Your task to perform on an android device: find snoozed emails in the gmail app Image 0: 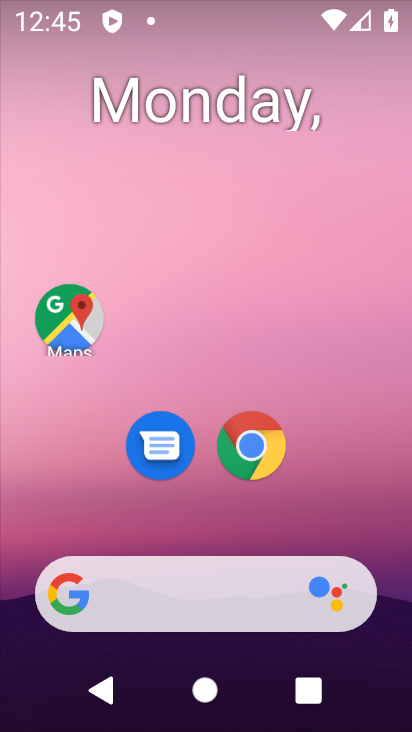
Step 0: drag from (382, 587) to (303, 95)
Your task to perform on an android device: find snoozed emails in the gmail app Image 1: 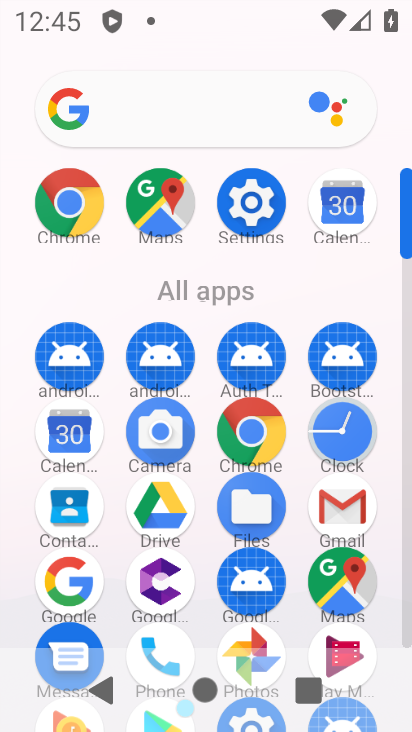
Step 1: click (406, 638)
Your task to perform on an android device: find snoozed emails in the gmail app Image 2: 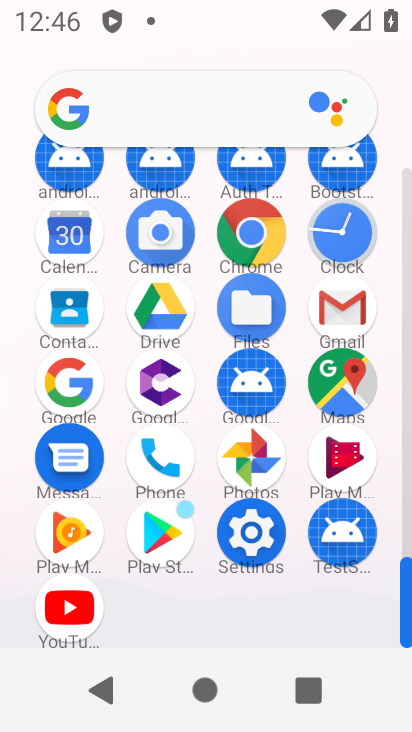
Step 2: click (341, 306)
Your task to perform on an android device: find snoozed emails in the gmail app Image 3: 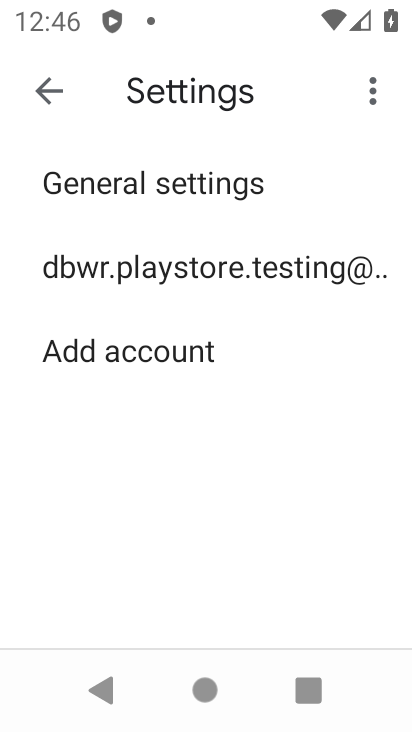
Step 3: press back button
Your task to perform on an android device: find snoozed emails in the gmail app Image 4: 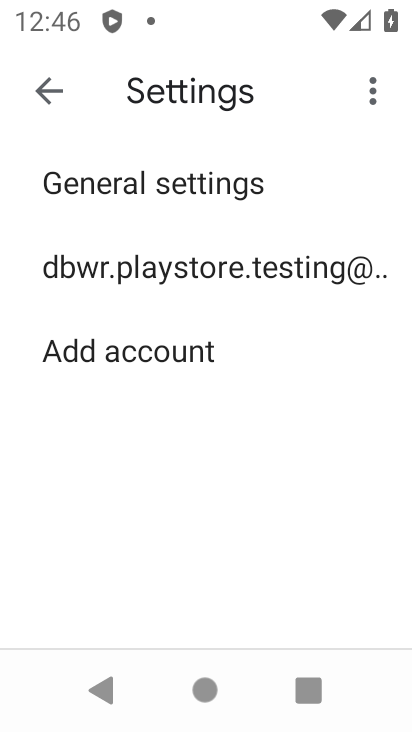
Step 4: press back button
Your task to perform on an android device: find snoozed emails in the gmail app Image 5: 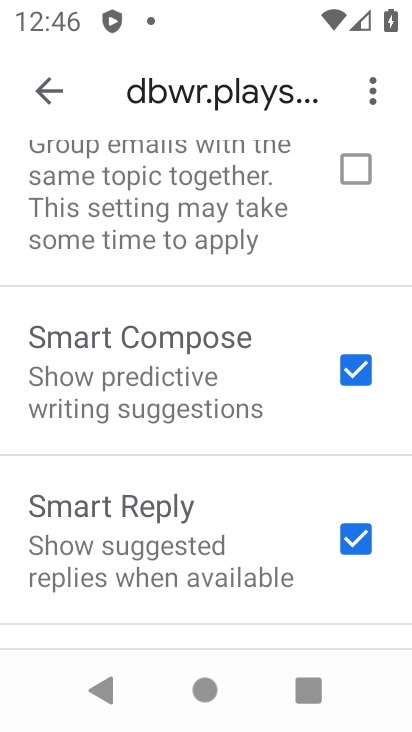
Step 5: press back button
Your task to perform on an android device: find snoozed emails in the gmail app Image 6: 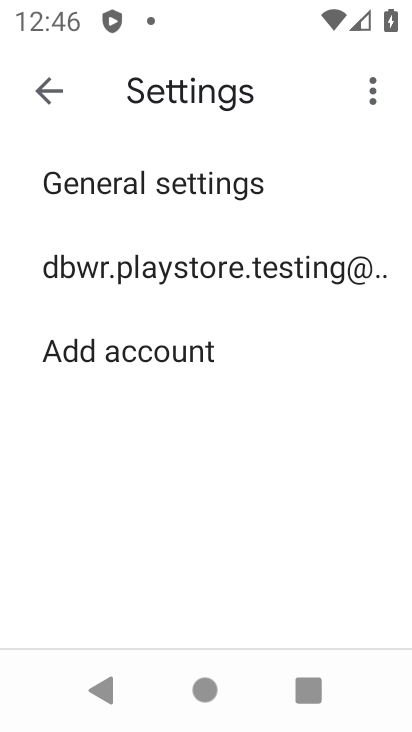
Step 6: press back button
Your task to perform on an android device: find snoozed emails in the gmail app Image 7: 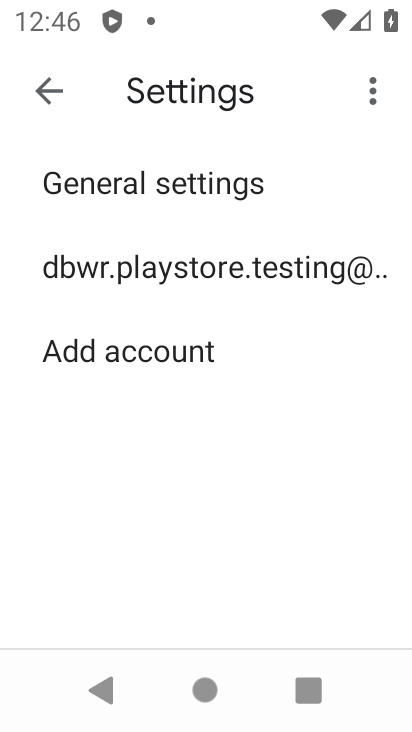
Step 7: press back button
Your task to perform on an android device: find snoozed emails in the gmail app Image 8: 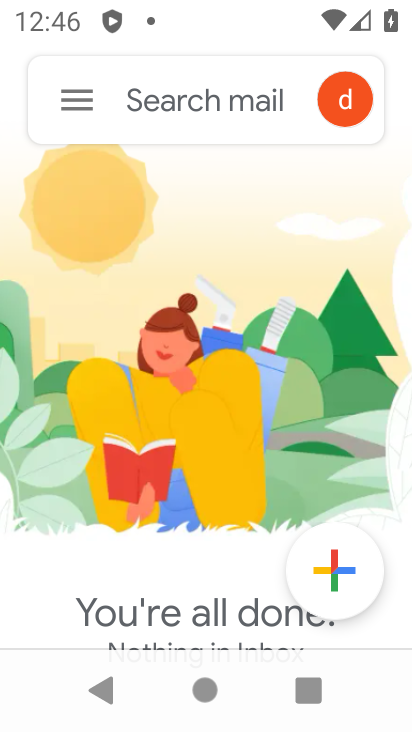
Step 8: click (80, 100)
Your task to perform on an android device: find snoozed emails in the gmail app Image 9: 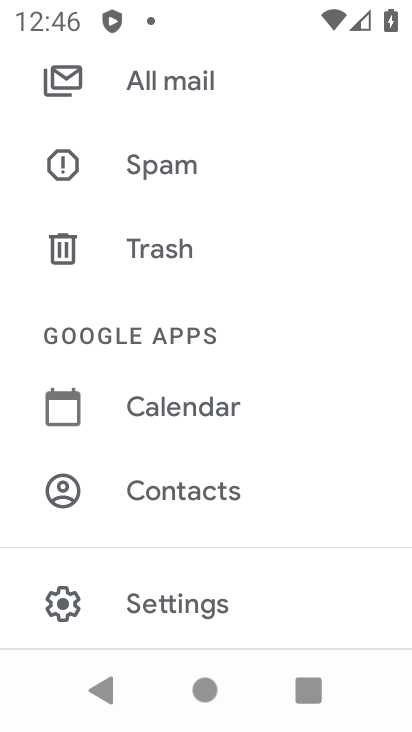
Step 9: click (172, 84)
Your task to perform on an android device: find snoozed emails in the gmail app Image 10: 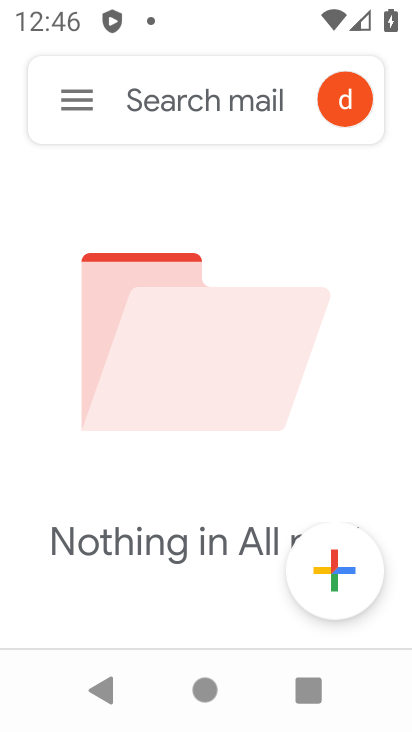
Step 10: click (74, 100)
Your task to perform on an android device: find snoozed emails in the gmail app Image 11: 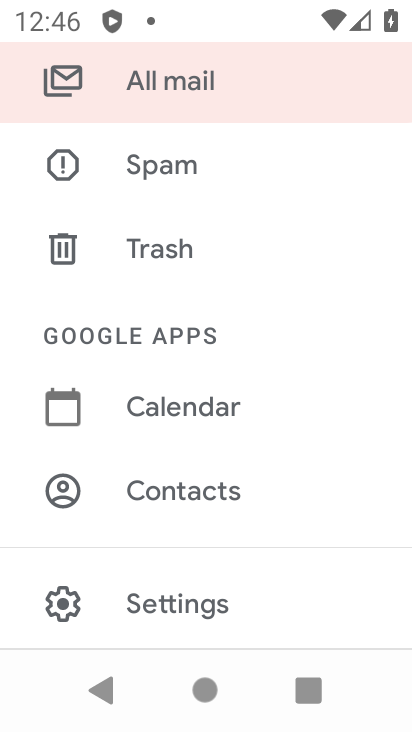
Step 11: drag from (216, 191) to (195, 438)
Your task to perform on an android device: find snoozed emails in the gmail app Image 12: 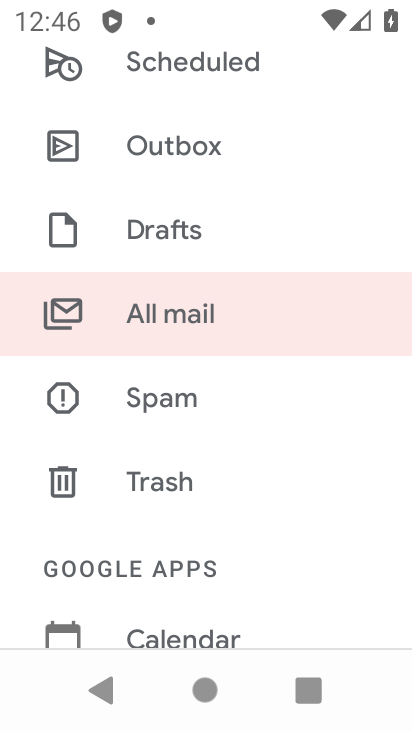
Step 12: drag from (239, 223) to (208, 511)
Your task to perform on an android device: find snoozed emails in the gmail app Image 13: 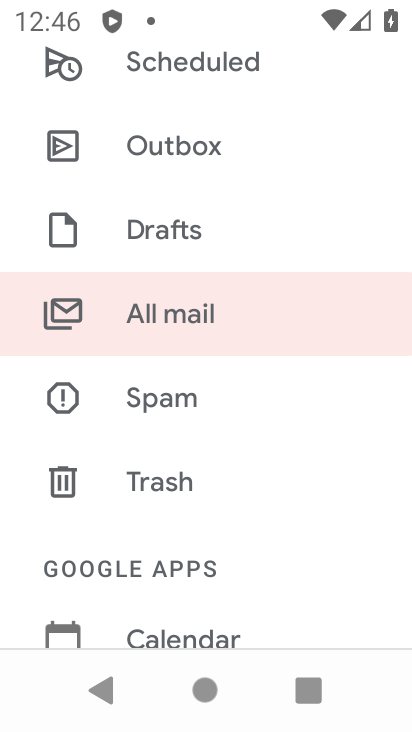
Step 13: drag from (270, 207) to (254, 515)
Your task to perform on an android device: find snoozed emails in the gmail app Image 14: 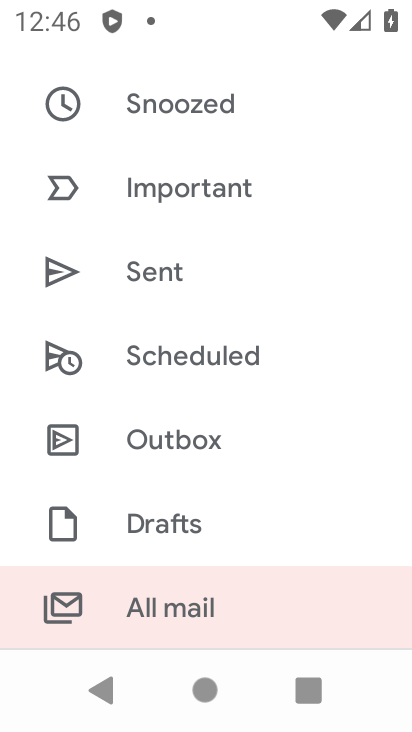
Step 14: click (173, 104)
Your task to perform on an android device: find snoozed emails in the gmail app Image 15: 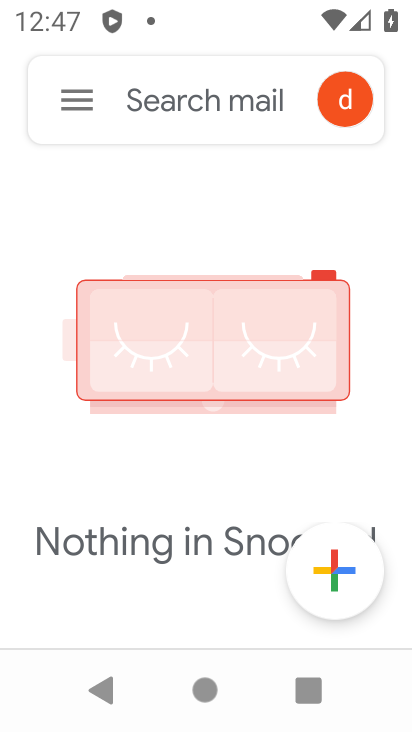
Step 15: task complete